Your task to perform on an android device: turn on airplane mode Image 0: 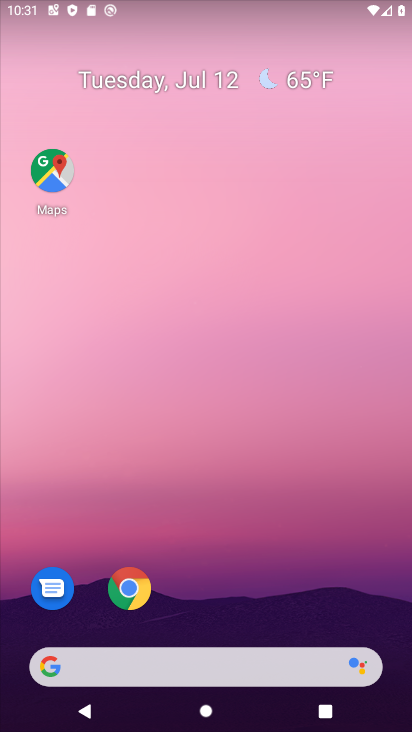
Step 0: drag from (39, 708) to (202, 287)
Your task to perform on an android device: turn on airplane mode Image 1: 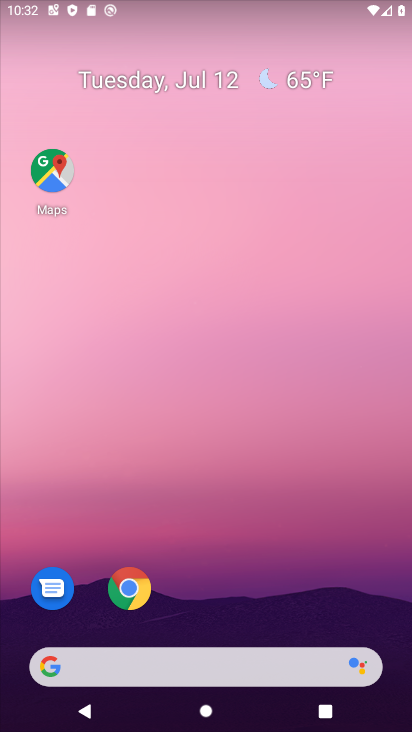
Step 1: drag from (34, 695) to (397, 26)
Your task to perform on an android device: turn on airplane mode Image 2: 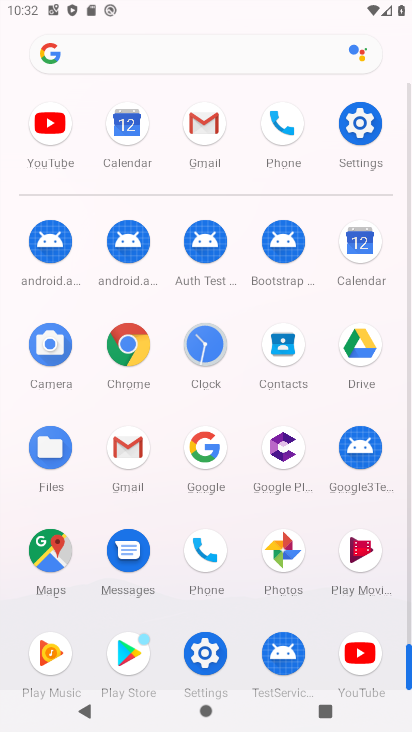
Step 2: click (209, 650)
Your task to perform on an android device: turn on airplane mode Image 3: 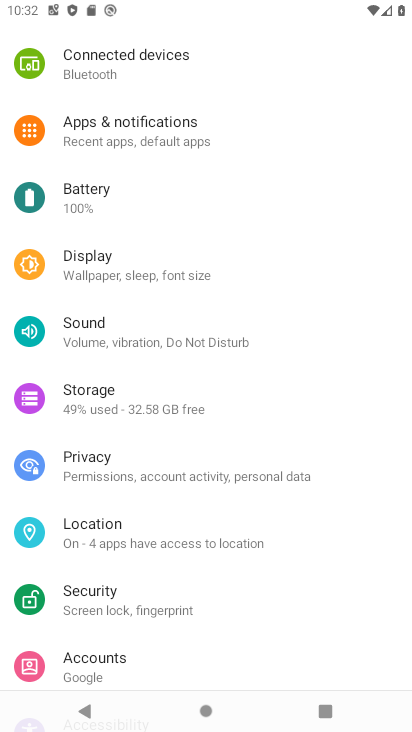
Step 3: drag from (320, 60) to (294, 708)
Your task to perform on an android device: turn on airplane mode Image 4: 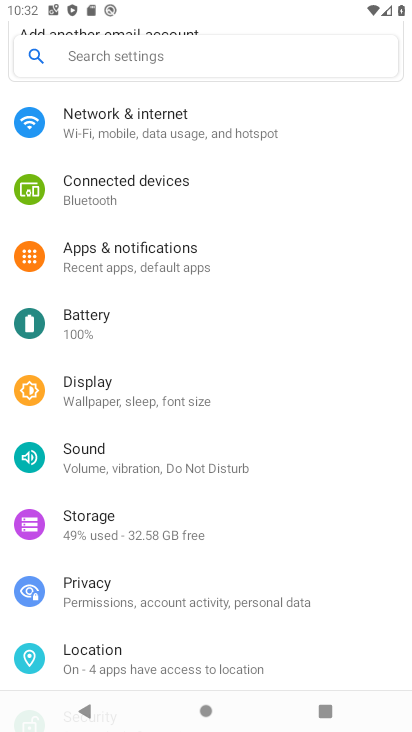
Step 4: click (150, 121)
Your task to perform on an android device: turn on airplane mode Image 5: 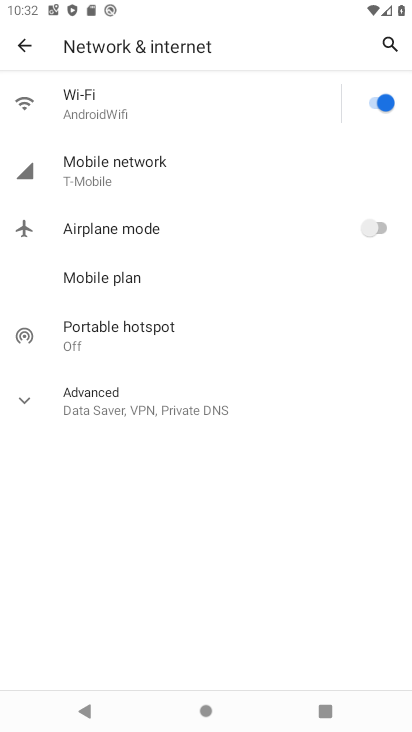
Step 5: click (368, 234)
Your task to perform on an android device: turn on airplane mode Image 6: 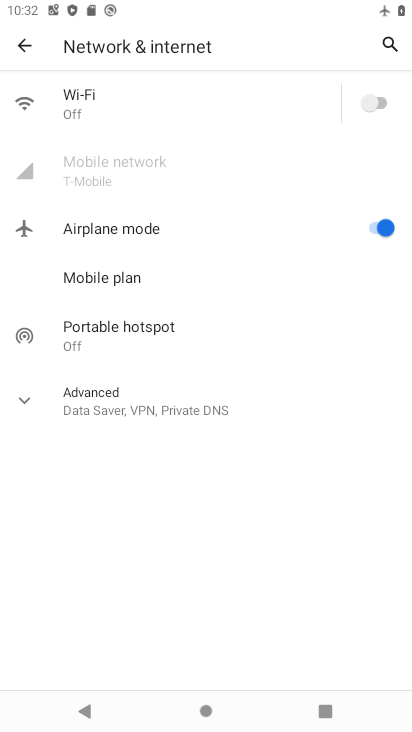
Step 6: task complete